Your task to perform on an android device: Go to Wikipedia Image 0: 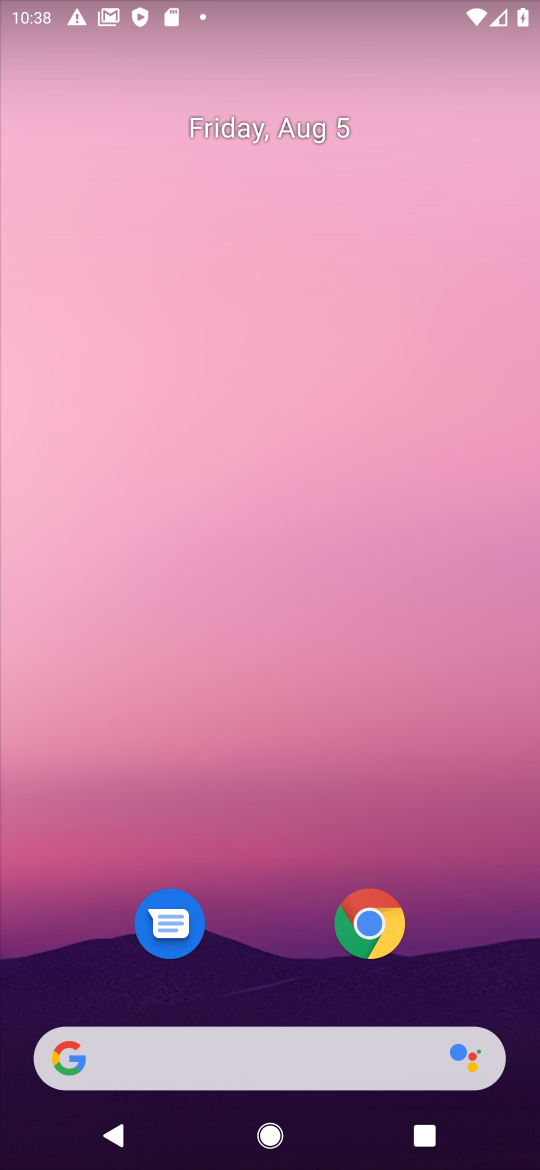
Step 0: drag from (386, 1053) to (263, 211)
Your task to perform on an android device: Go to Wikipedia Image 1: 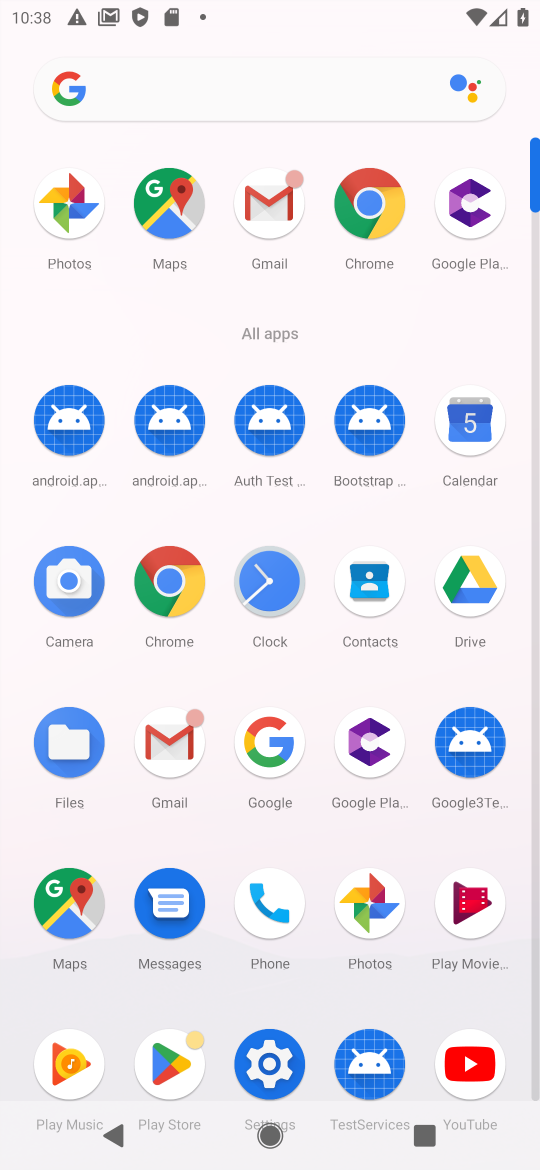
Step 1: click (167, 574)
Your task to perform on an android device: Go to Wikipedia Image 2: 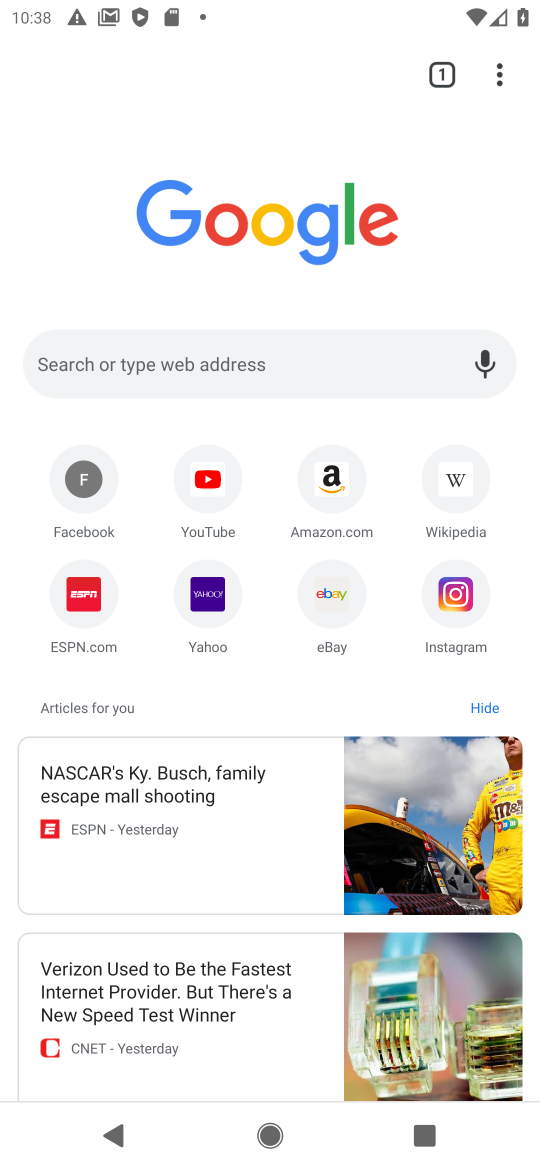
Step 2: click (456, 458)
Your task to perform on an android device: Go to Wikipedia Image 3: 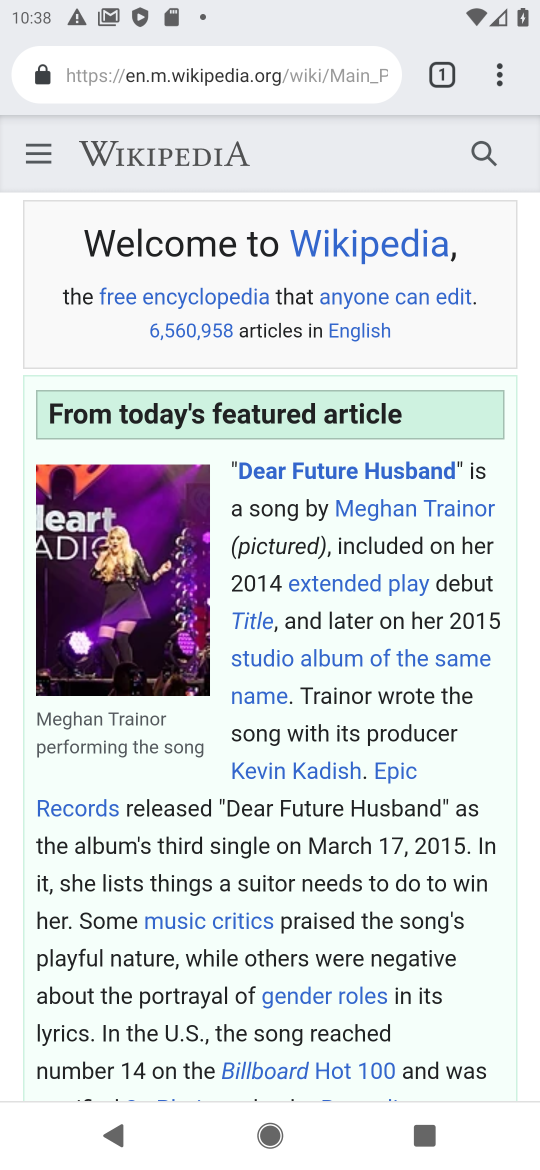
Step 3: task complete